Your task to perform on an android device: check data usage Image 0: 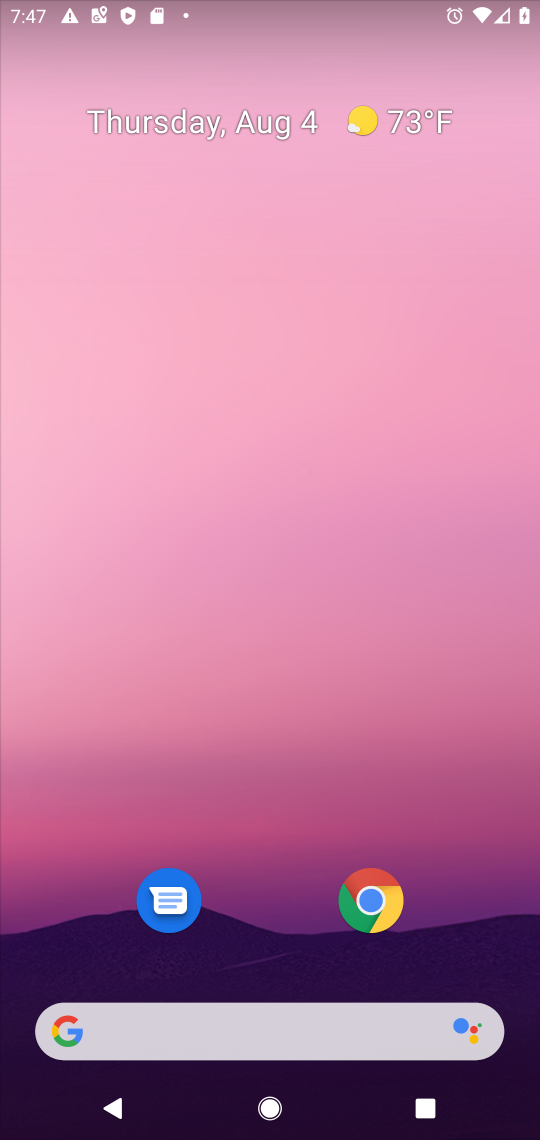
Step 0: drag from (254, 1048) to (354, 155)
Your task to perform on an android device: check data usage Image 1: 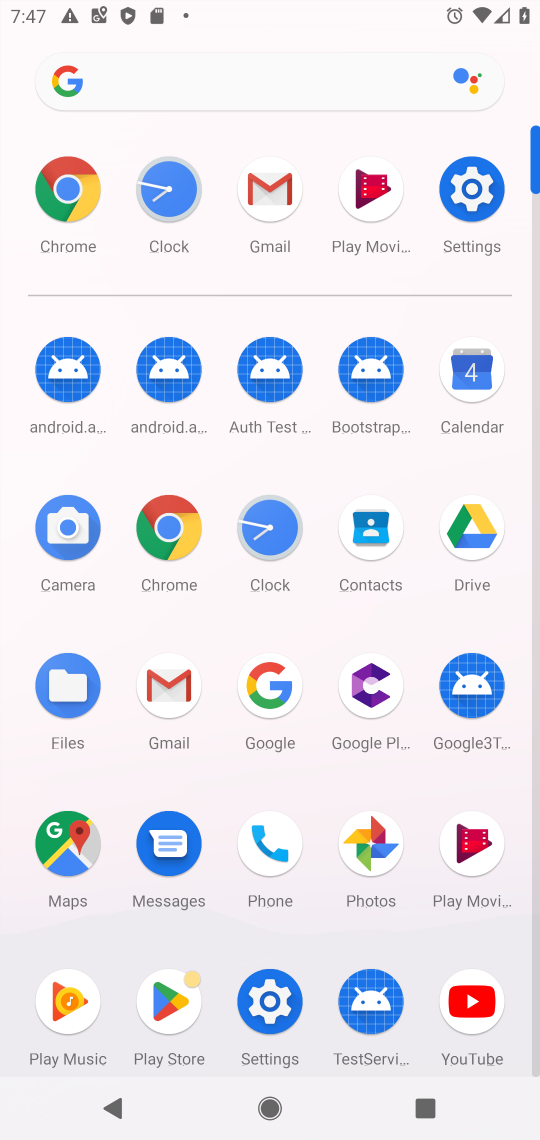
Step 1: click (471, 186)
Your task to perform on an android device: check data usage Image 2: 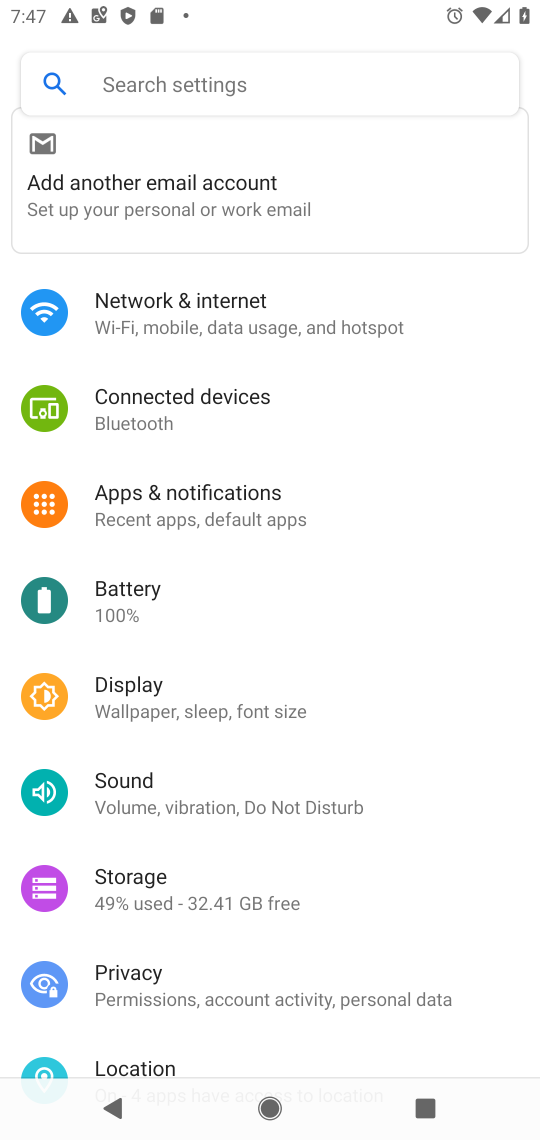
Step 2: click (241, 322)
Your task to perform on an android device: check data usage Image 3: 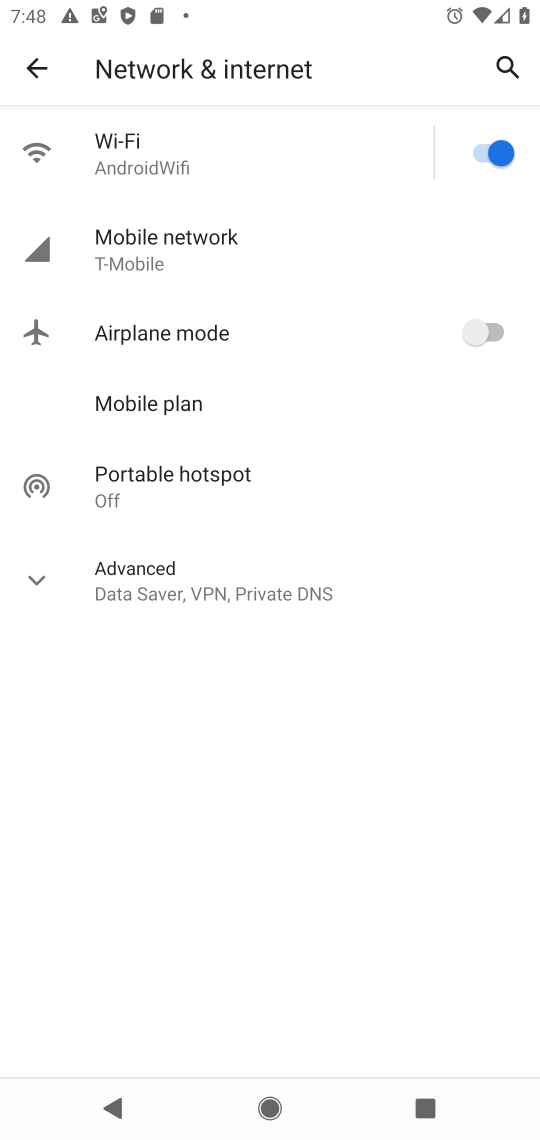
Step 3: click (197, 262)
Your task to perform on an android device: check data usage Image 4: 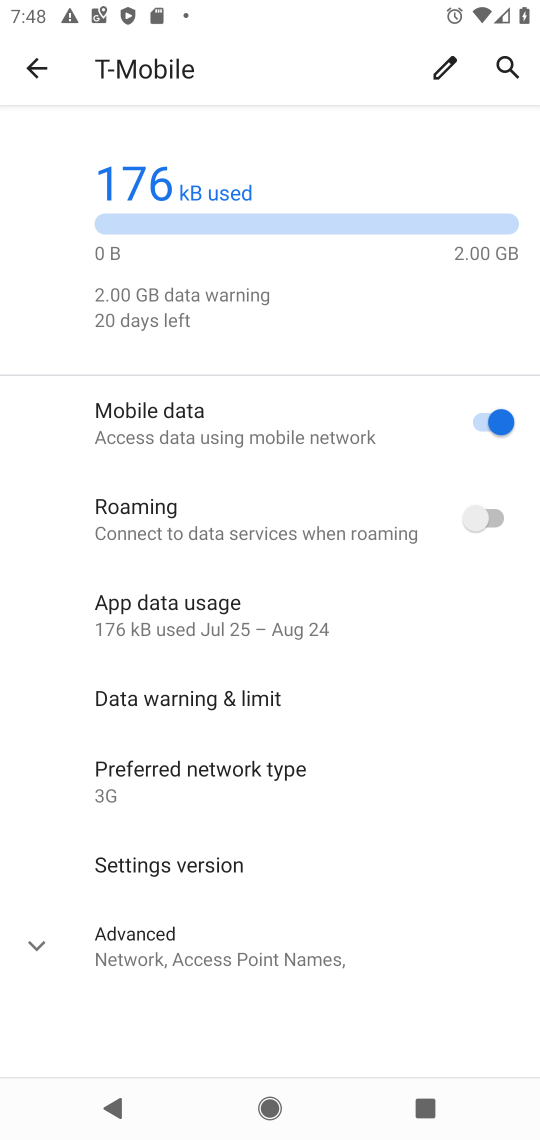
Step 4: task complete